Your task to perform on an android device: What's on my calendar tomorrow? Image 0: 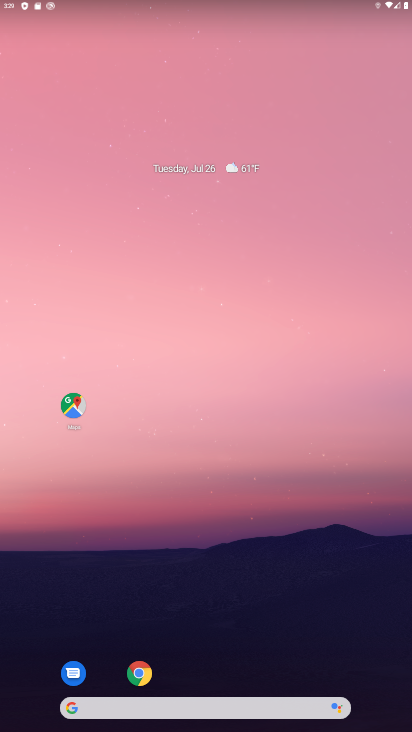
Step 0: press home button
Your task to perform on an android device: What's on my calendar tomorrow? Image 1: 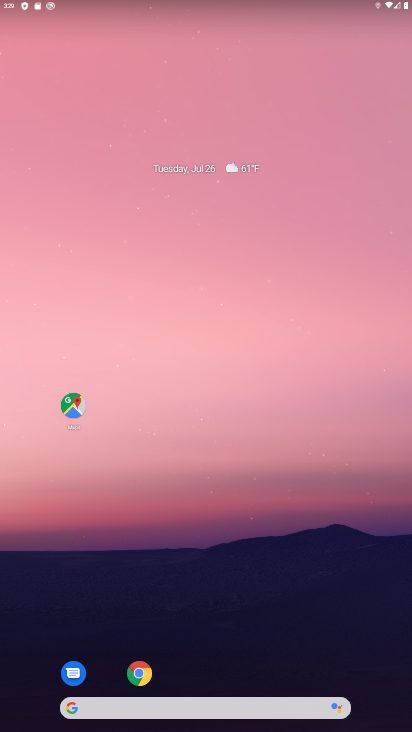
Step 1: drag from (218, 677) to (311, 33)
Your task to perform on an android device: What's on my calendar tomorrow? Image 2: 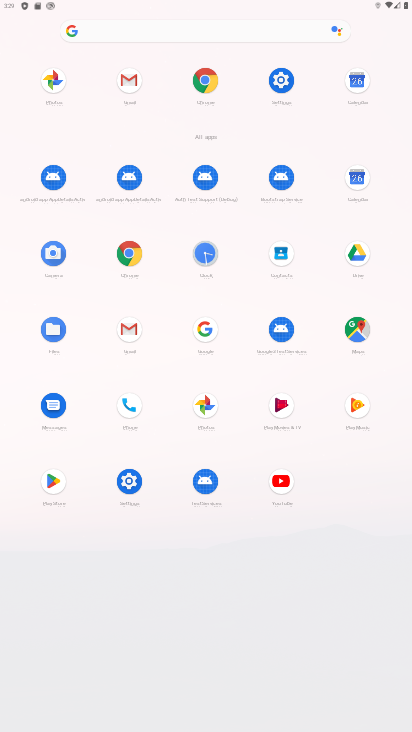
Step 2: click (356, 172)
Your task to perform on an android device: What's on my calendar tomorrow? Image 3: 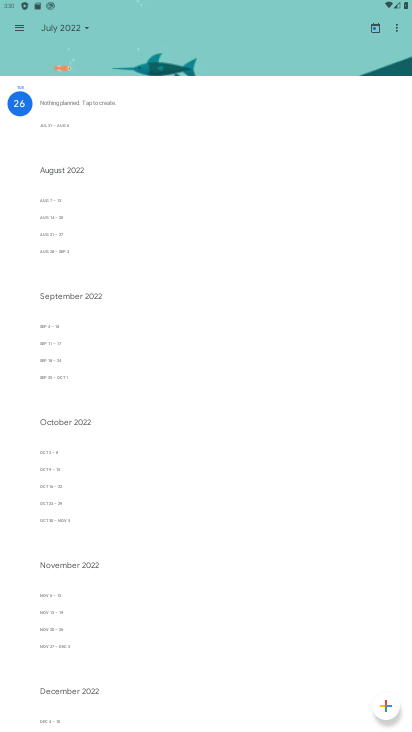
Step 3: click (17, 30)
Your task to perform on an android device: What's on my calendar tomorrow? Image 4: 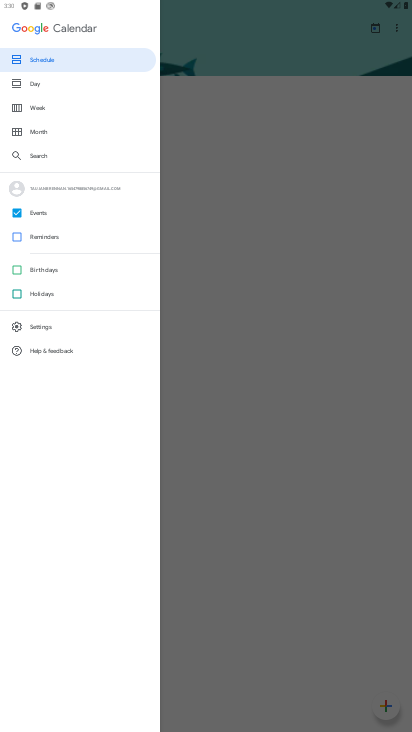
Step 4: click (43, 81)
Your task to perform on an android device: What's on my calendar tomorrow? Image 5: 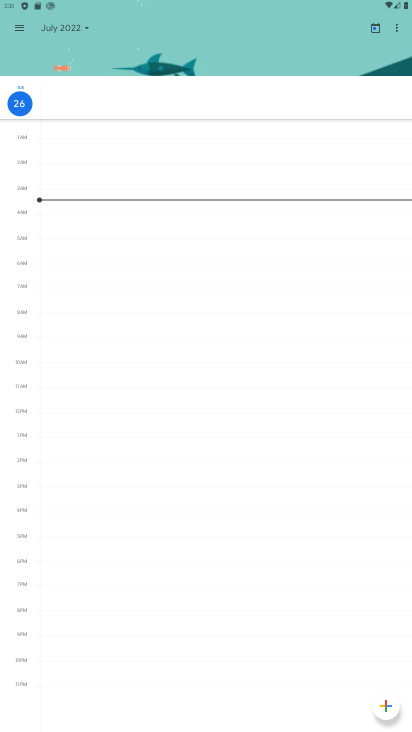
Step 5: click (84, 26)
Your task to perform on an android device: What's on my calendar tomorrow? Image 6: 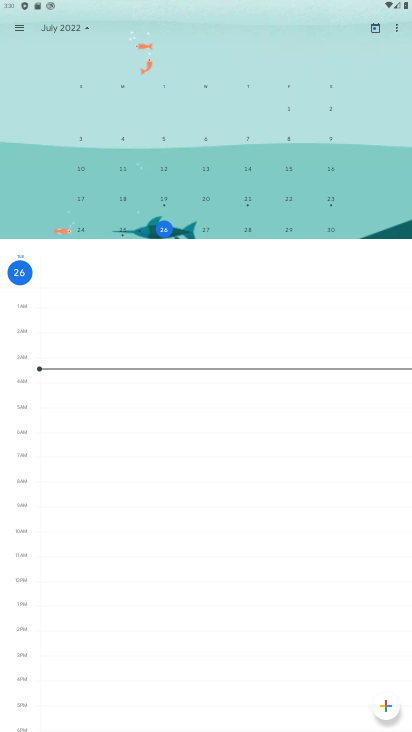
Step 6: click (208, 196)
Your task to perform on an android device: What's on my calendar tomorrow? Image 7: 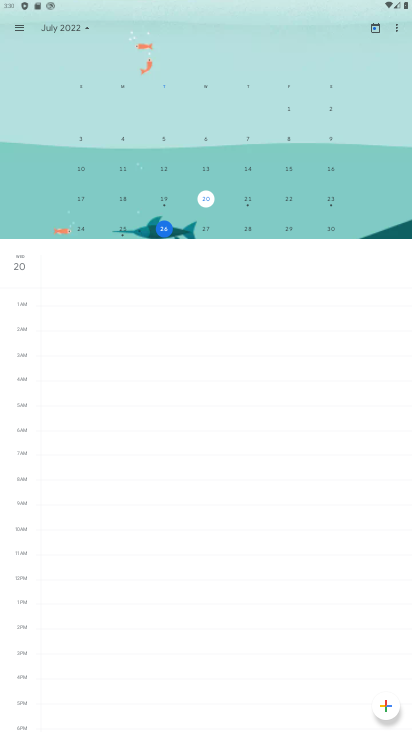
Step 7: click (209, 228)
Your task to perform on an android device: What's on my calendar tomorrow? Image 8: 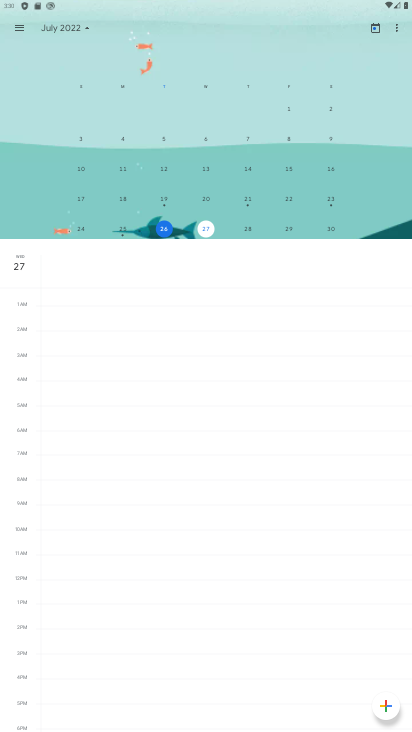
Step 8: click (88, 23)
Your task to perform on an android device: What's on my calendar tomorrow? Image 9: 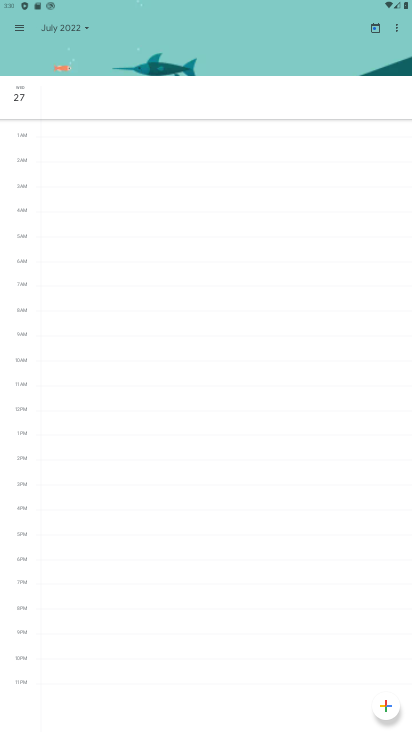
Step 9: task complete